Your task to perform on an android device: Clear the shopping cart on walmart. Search for razer naga on walmart, select the first entry, and add it to the cart. Image 0: 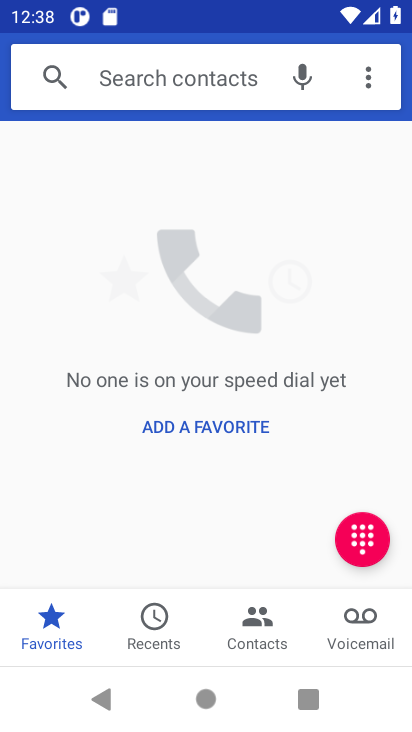
Step 0: press home button
Your task to perform on an android device: Clear the shopping cart on walmart. Search for razer naga on walmart, select the first entry, and add it to the cart. Image 1: 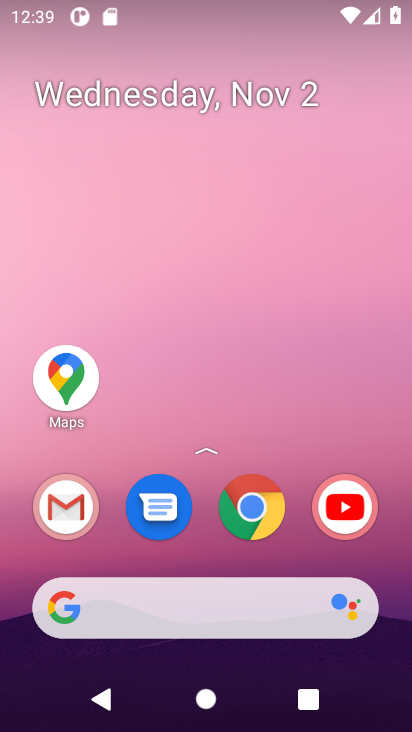
Step 1: click (181, 605)
Your task to perform on an android device: Clear the shopping cart on walmart. Search for razer naga on walmart, select the first entry, and add it to the cart. Image 2: 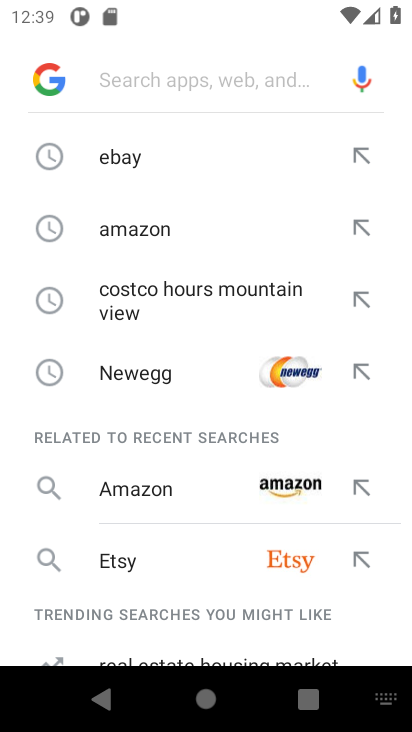
Step 2: type "walmart"
Your task to perform on an android device: Clear the shopping cart on walmart. Search for razer naga on walmart, select the first entry, and add it to the cart. Image 3: 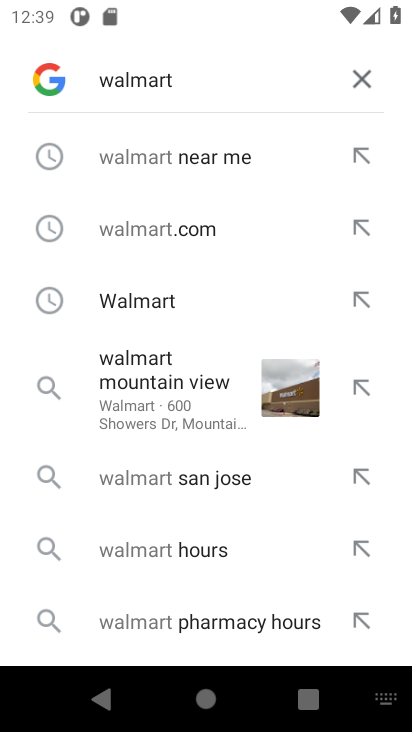
Step 3: type ""
Your task to perform on an android device: Clear the shopping cart on walmart. Search for razer naga on walmart, select the first entry, and add it to the cart. Image 4: 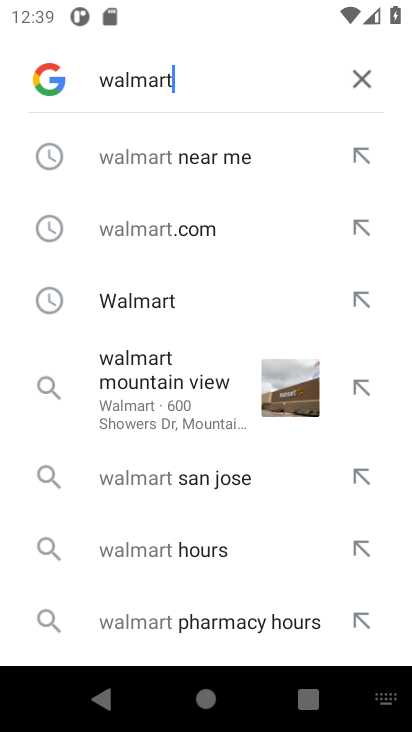
Step 4: click (172, 229)
Your task to perform on an android device: Clear the shopping cart on walmart. Search for razer naga on walmart, select the first entry, and add it to the cart. Image 5: 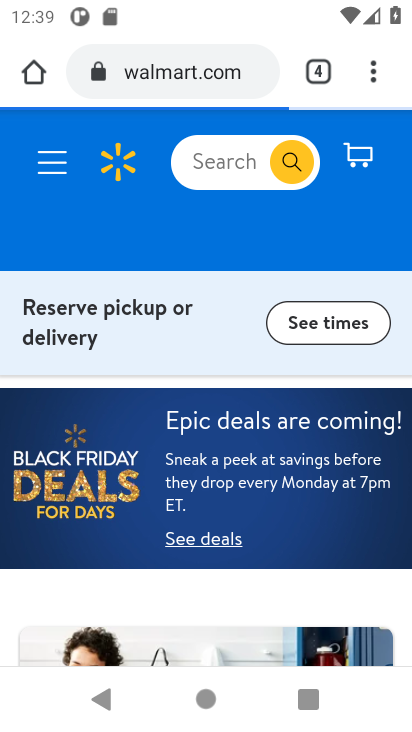
Step 5: click (212, 174)
Your task to perform on an android device: Clear the shopping cart on walmart. Search for razer naga on walmart, select the first entry, and add it to the cart. Image 6: 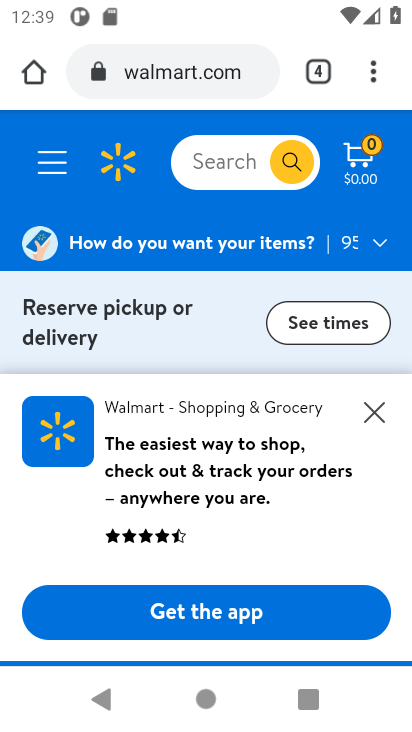
Step 6: click (194, 169)
Your task to perform on an android device: Clear the shopping cart on walmart. Search for razer naga on walmart, select the first entry, and add it to the cart. Image 7: 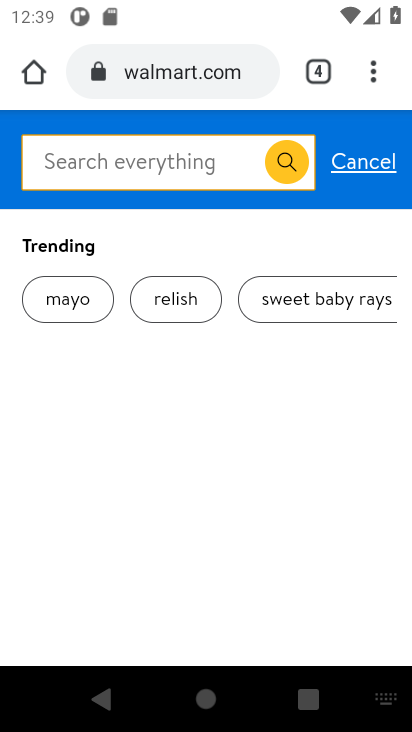
Step 7: type "razer naga"
Your task to perform on an android device: Clear the shopping cart on walmart. Search for razer naga on walmart, select the first entry, and add it to the cart. Image 8: 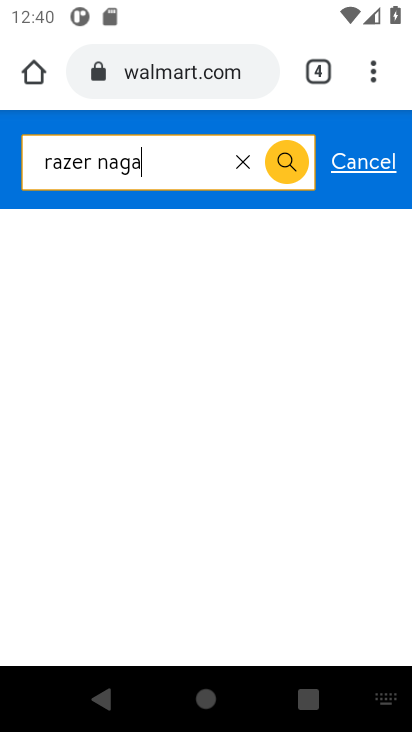
Step 8: type ""
Your task to perform on an android device: Clear the shopping cart on walmart. Search for razer naga on walmart, select the first entry, and add it to the cart. Image 9: 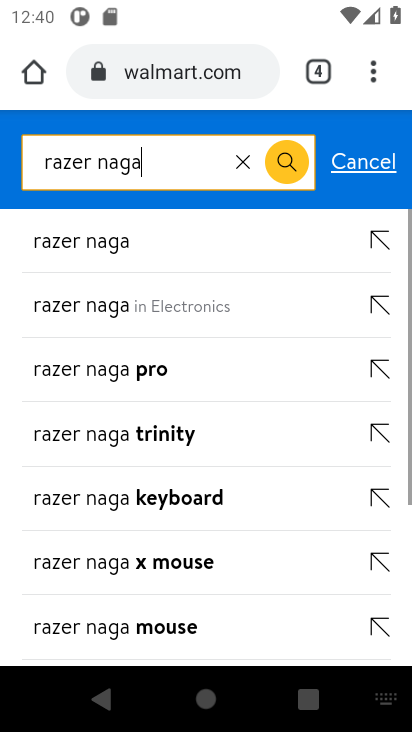
Step 9: click (286, 146)
Your task to perform on an android device: Clear the shopping cart on walmart. Search for razer naga on walmart, select the first entry, and add it to the cart. Image 10: 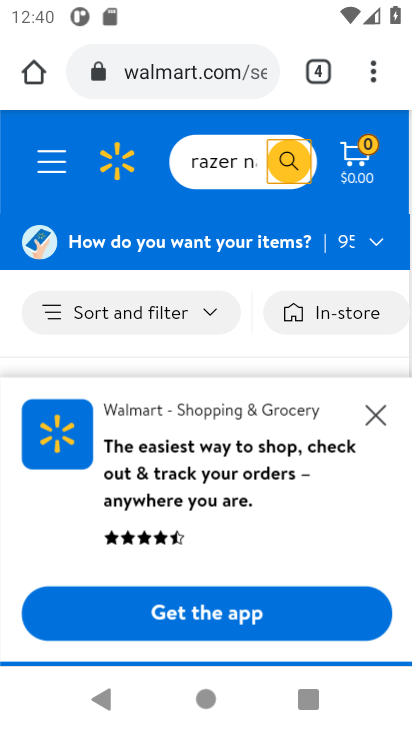
Step 10: click (375, 413)
Your task to perform on an android device: Clear the shopping cart on walmart. Search for razer naga on walmart, select the first entry, and add it to the cart. Image 11: 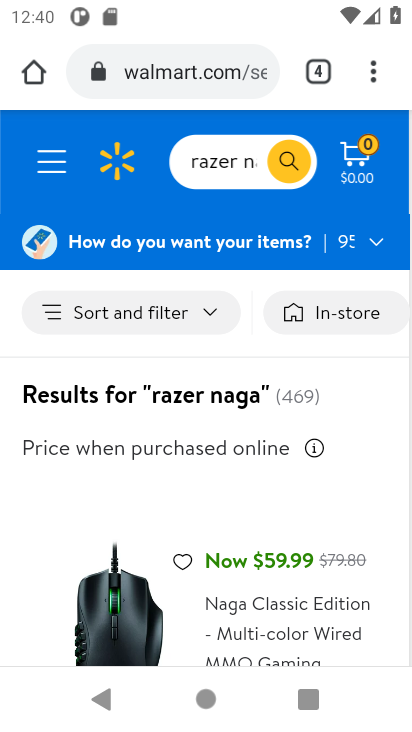
Step 11: drag from (323, 474) to (346, 246)
Your task to perform on an android device: Clear the shopping cart on walmart. Search for razer naga on walmart, select the first entry, and add it to the cart. Image 12: 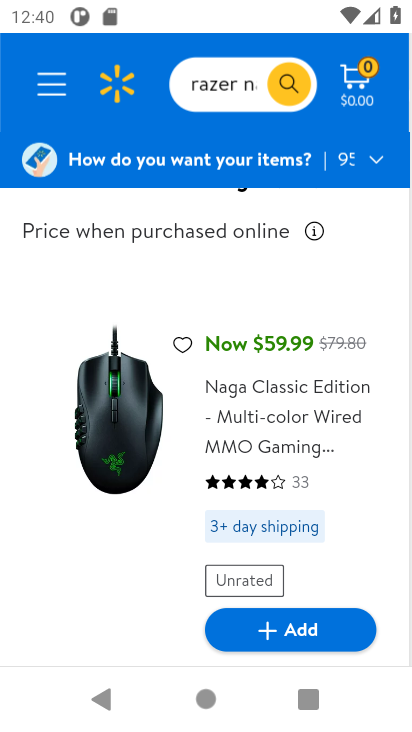
Step 12: click (330, 322)
Your task to perform on an android device: Clear the shopping cart on walmart. Search for razer naga on walmart, select the first entry, and add it to the cart. Image 13: 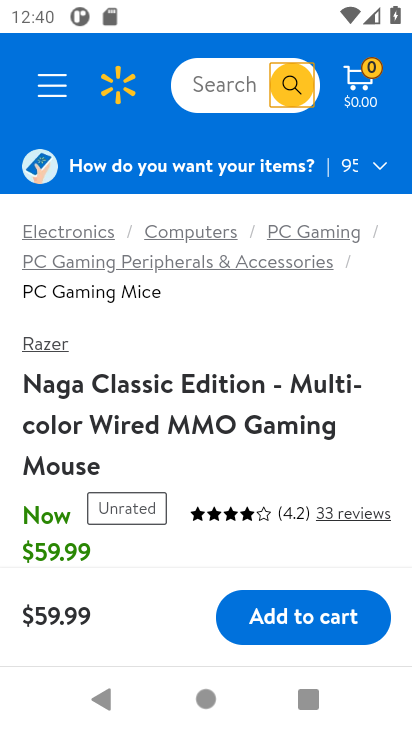
Step 13: click (289, 602)
Your task to perform on an android device: Clear the shopping cart on walmart. Search for razer naga on walmart, select the first entry, and add it to the cart. Image 14: 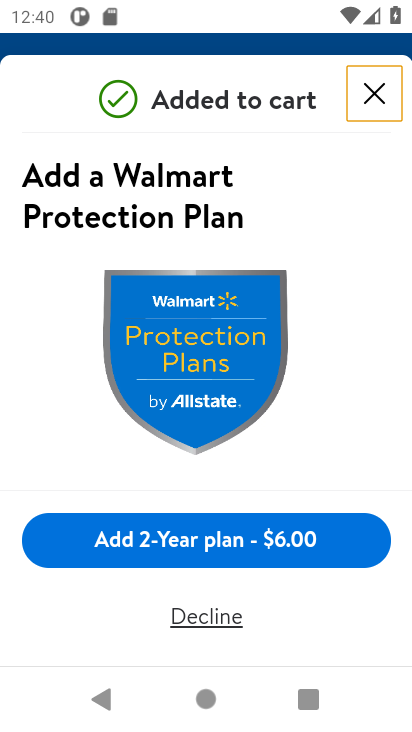
Step 14: click (373, 93)
Your task to perform on an android device: Clear the shopping cart on walmart. Search for razer naga on walmart, select the first entry, and add it to the cart. Image 15: 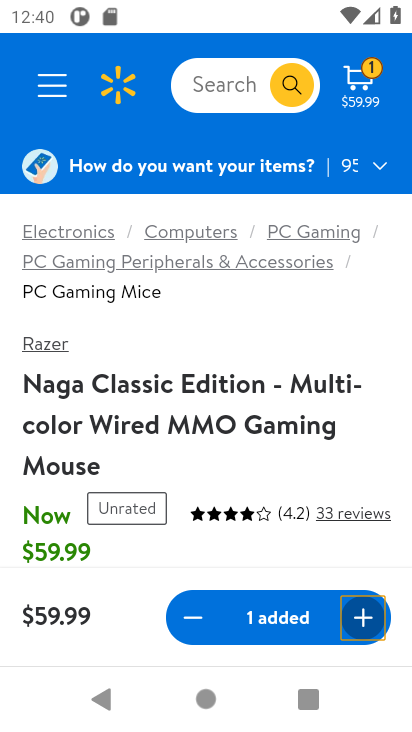
Step 15: task complete